Your task to perform on an android device: move an email to a new category in the gmail app Image 0: 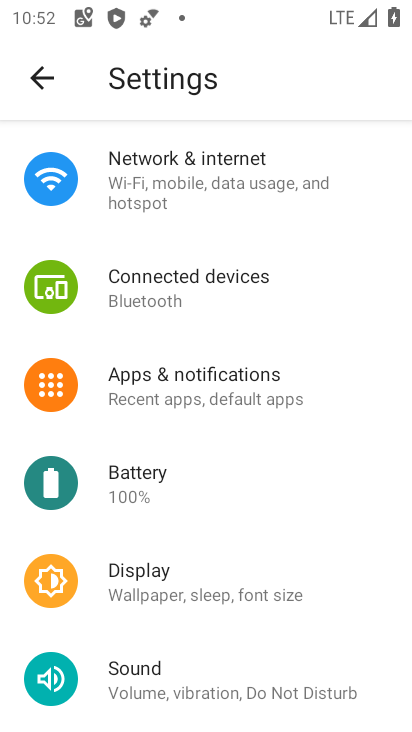
Step 0: press back button
Your task to perform on an android device: move an email to a new category in the gmail app Image 1: 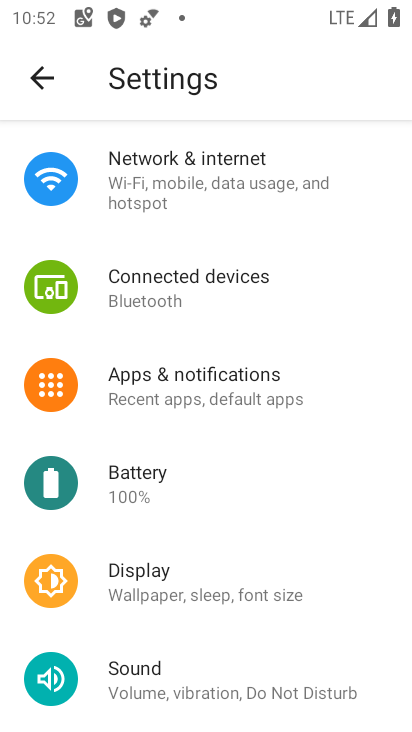
Step 1: press back button
Your task to perform on an android device: move an email to a new category in the gmail app Image 2: 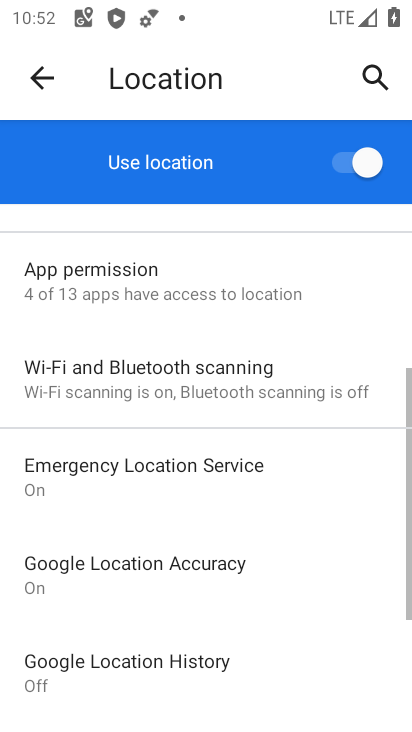
Step 2: press back button
Your task to perform on an android device: move an email to a new category in the gmail app Image 3: 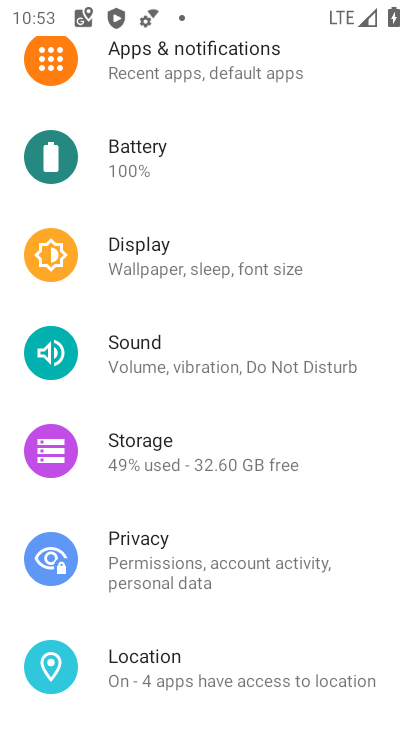
Step 3: press back button
Your task to perform on an android device: move an email to a new category in the gmail app Image 4: 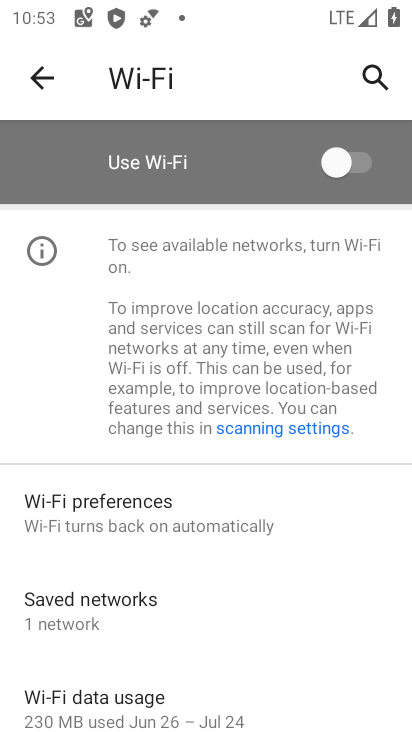
Step 4: press back button
Your task to perform on an android device: move an email to a new category in the gmail app Image 5: 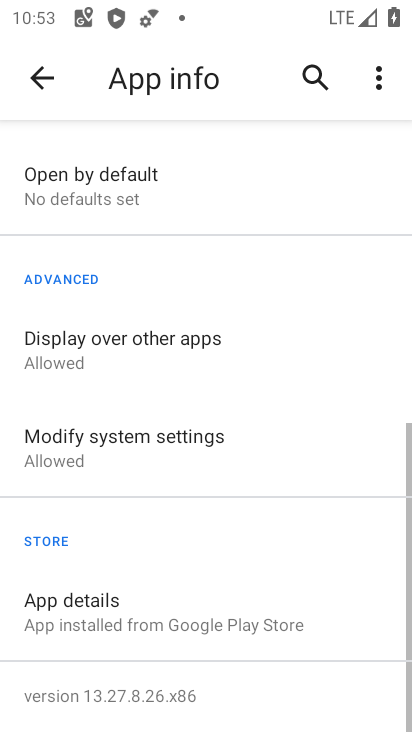
Step 5: press back button
Your task to perform on an android device: move an email to a new category in the gmail app Image 6: 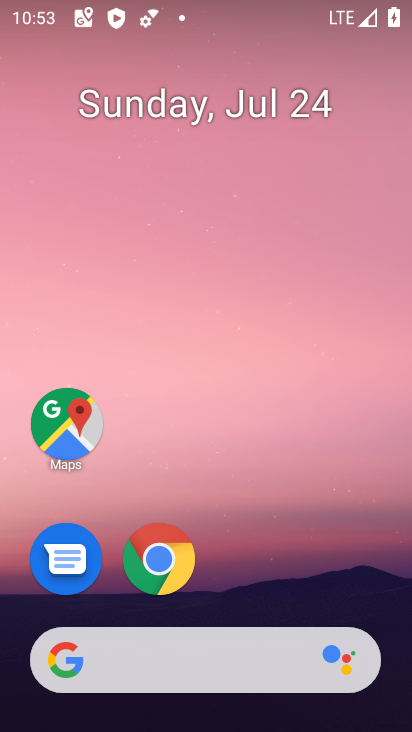
Step 6: drag from (232, 582) to (309, 4)
Your task to perform on an android device: move an email to a new category in the gmail app Image 7: 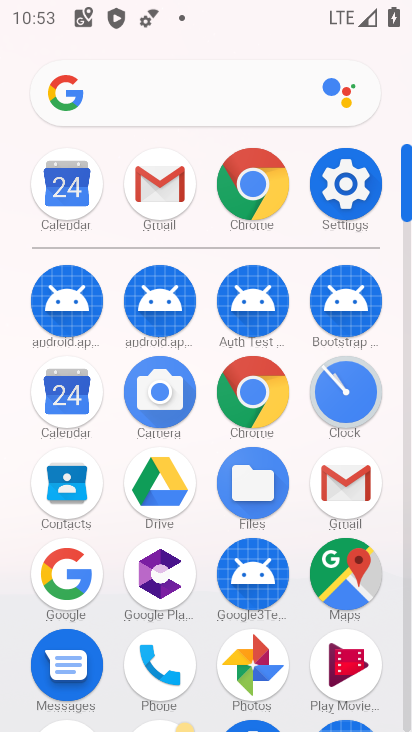
Step 7: click (145, 195)
Your task to perform on an android device: move an email to a new category in the gmail app Image 8: 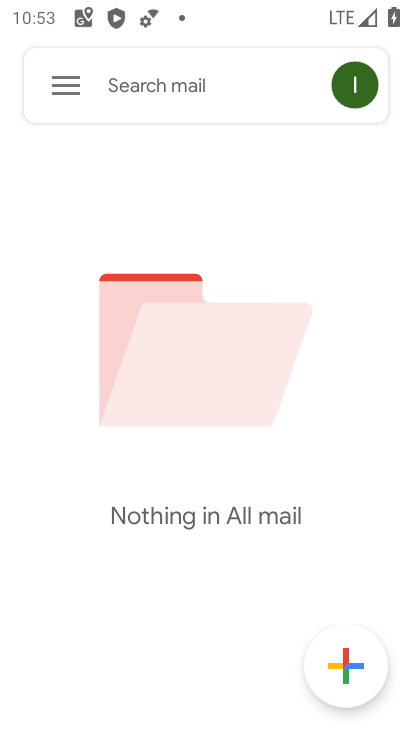
Step 8: task complete